Your task to perform on an android device: open device folders in google photos Image 0: 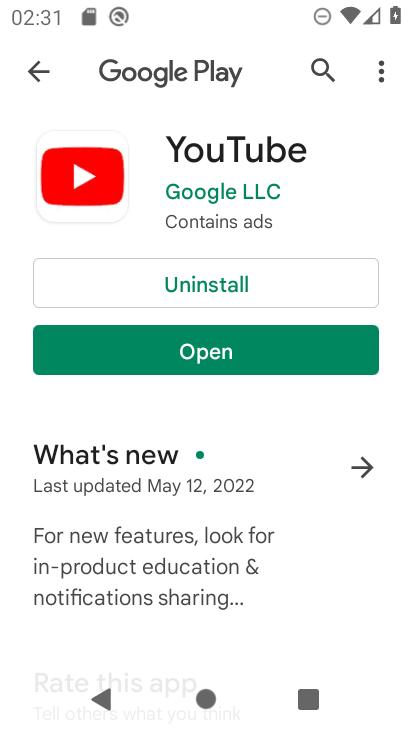
Step 0: press home button
Your task to perform on an android device: open device folders in google photos Image 1: 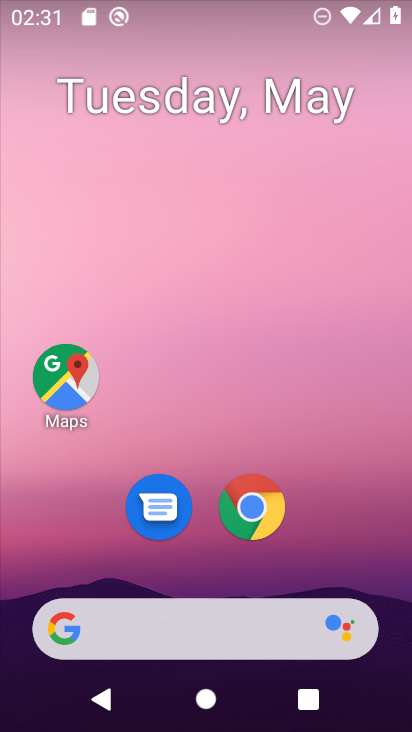
Step 1: drag from (213, 558) to (206, 213)
Your task to perform on an android device: open device folders in google photos Image 2: 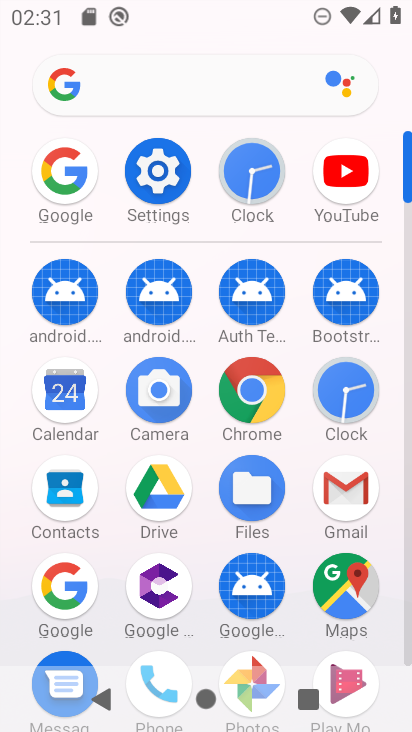
Step 2: drag from (266, 636) to (279, 372)
Your task to perform on an android device: open device folders in google photos Image 3: 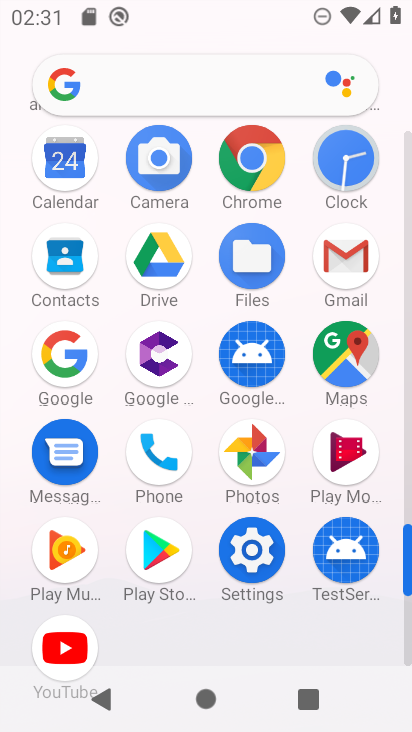
Step 3: click (279, 455)
Your task to perform on an android device: open device folders in google photos Image 4: 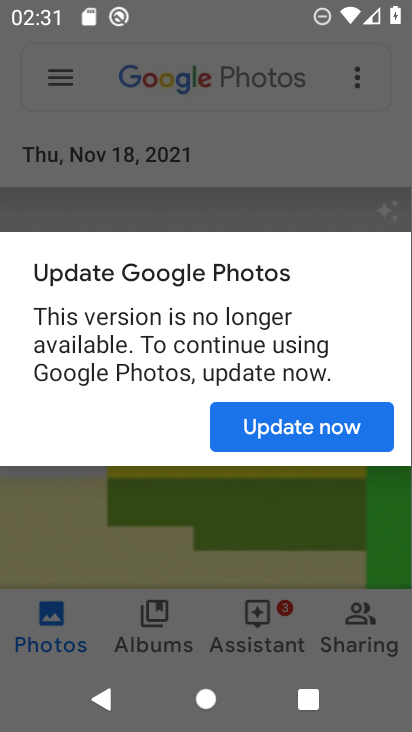
Step 4: click (257, 407)
Your task to perform on an android device: open device folders in google photos Image 5: 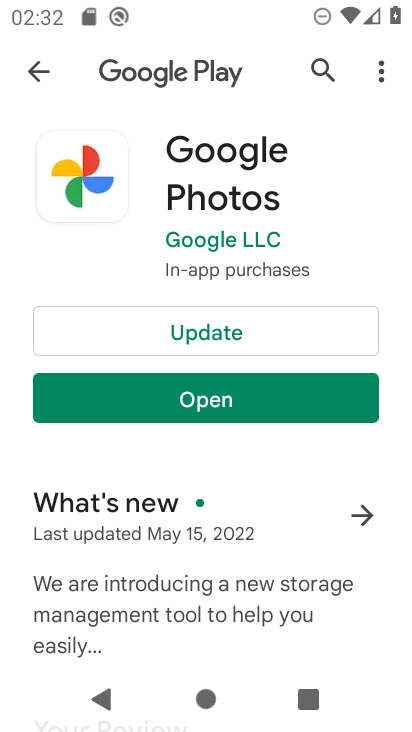
Step 5: click (201, 392)
Your task to perform on an android device: open device folders in google photos Image 6: 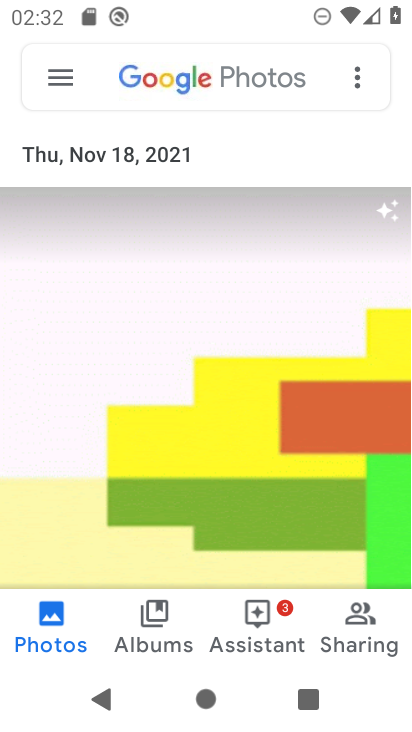
Step 6: click (53, 86)
Your task to perform on an android device: open device folders in google photos Image 7: 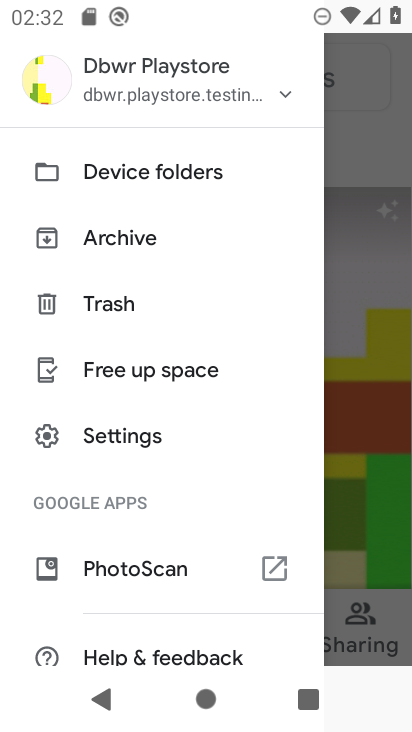
Step 7: click (119, 175)
Your task to perform on an android device: open device folders in google photos Image 8: 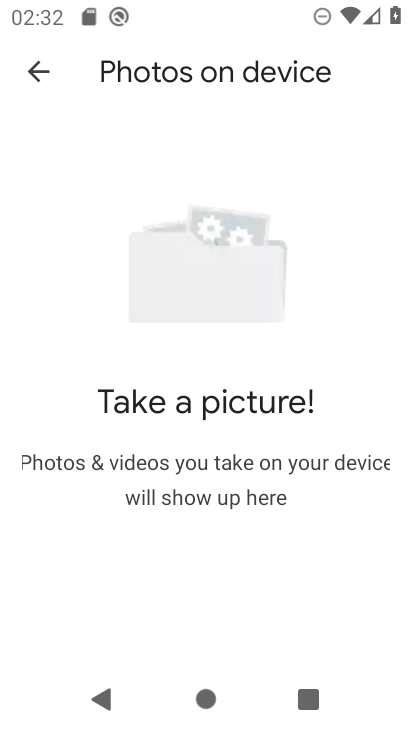
Step 8: task complete